Your task to perform on an android device: Search for macbook on ebay, select the first entry, and add it to the cart. Image 0: 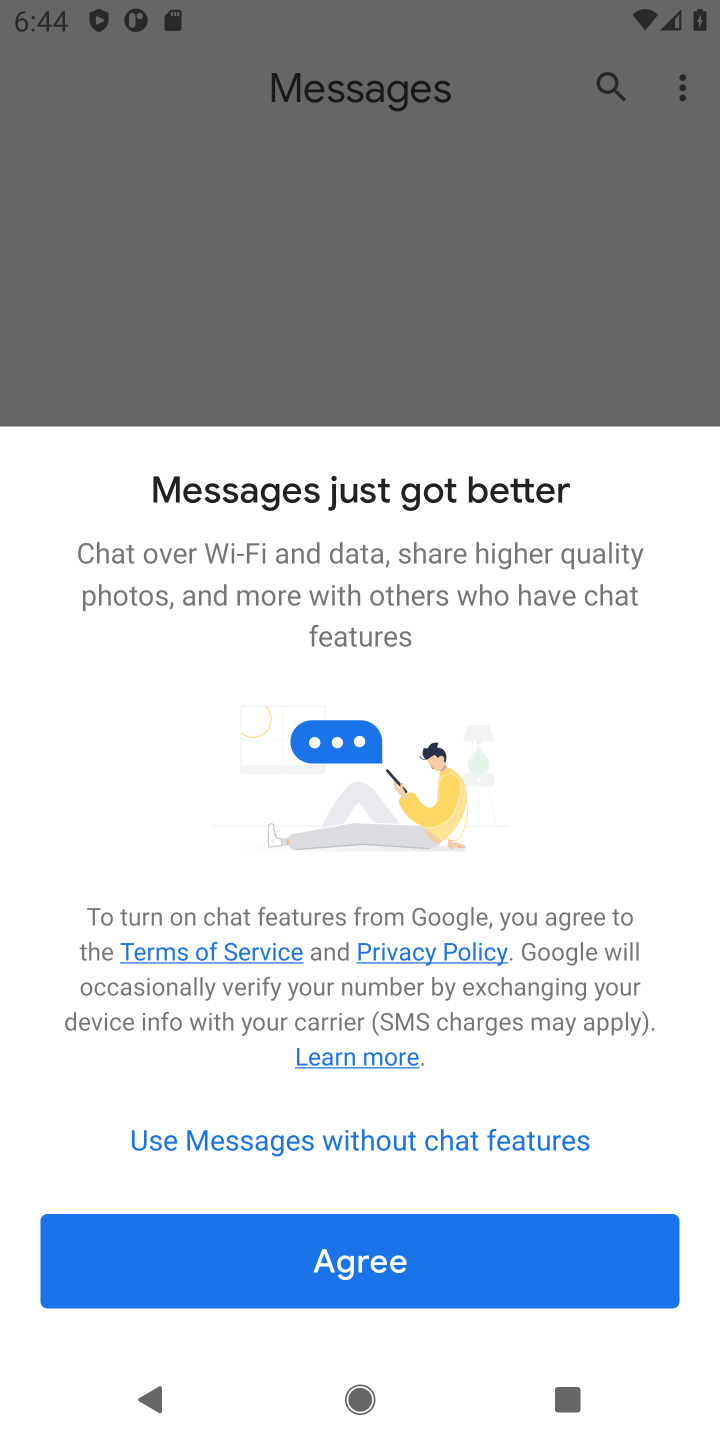
Step 0: press home button
Your task to perform on an android device: Search for macbook on ebay, select the first entry, and add it to the cart. Image 1: 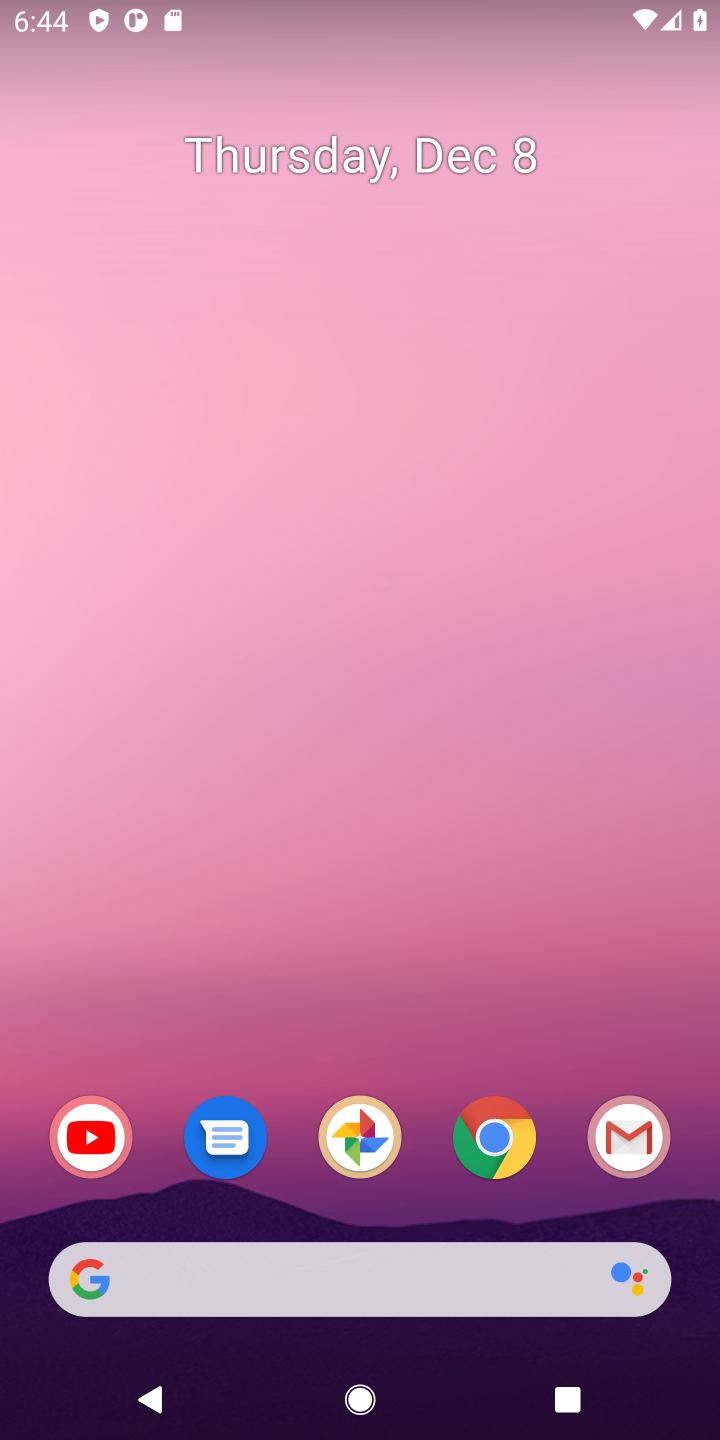
Step 1: click (498, 1165)
Your task to perform on an android device: Search for macbook on ebay, select the first entry, and add it to the cart. Image 2: 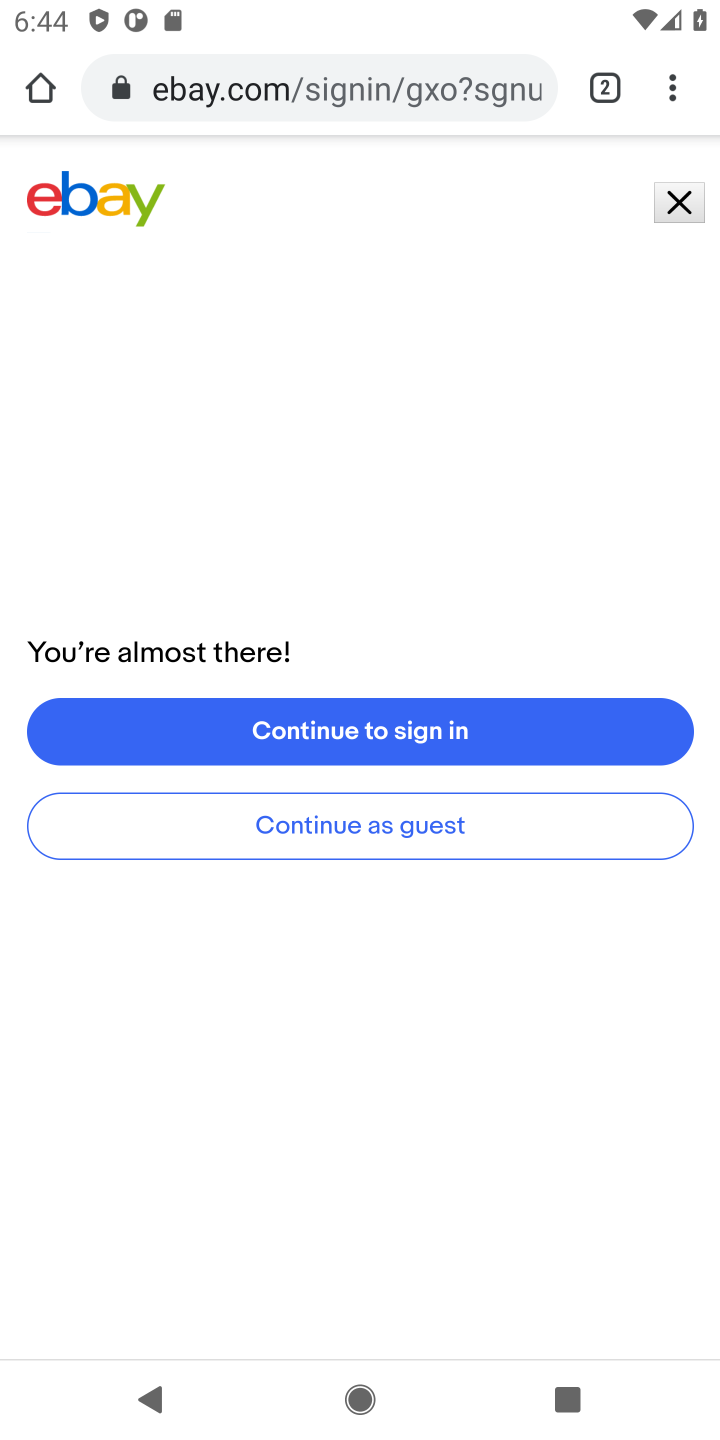
Step 2: click (680, 208)
Your task to perform on an android device: Search for macbook on ebay, select the first entry, and add it to the cart. Image 3: 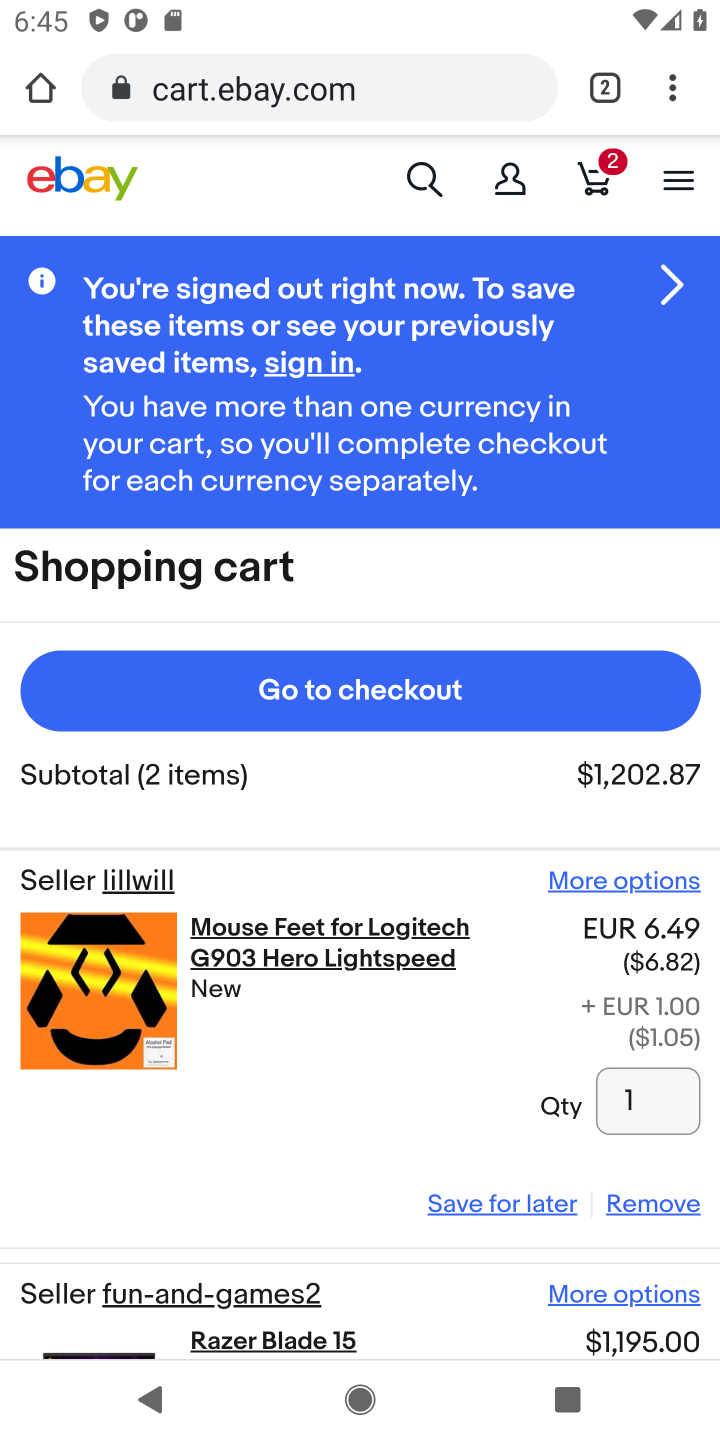
Step 3: click (420, 178)
Your task to perform on an android device: Search for macbook on ebay, select the first entry, and add it to the cart. Image 4: 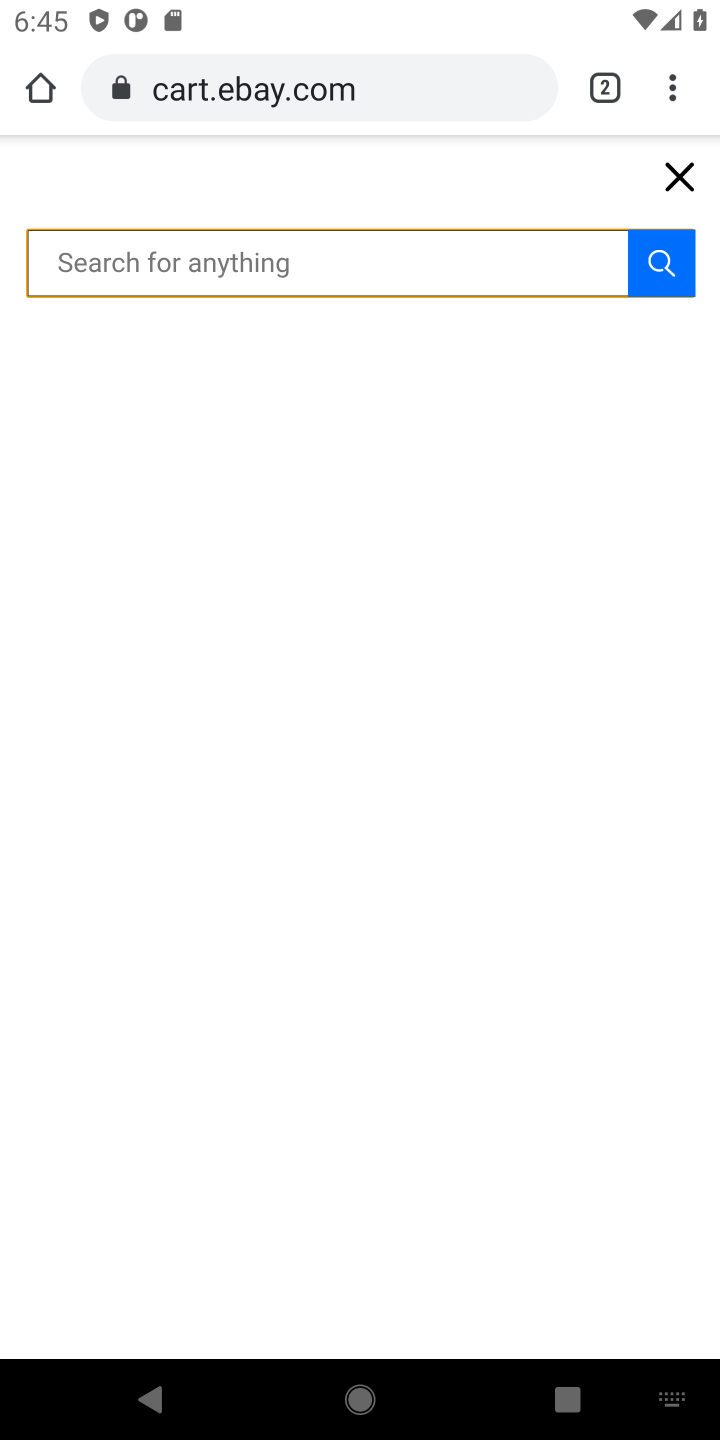
Step 4: type "macbook"
Your task to perform on an android device: Search for macbook on ebay, select the first entry, and add it to the cart. Image 5: 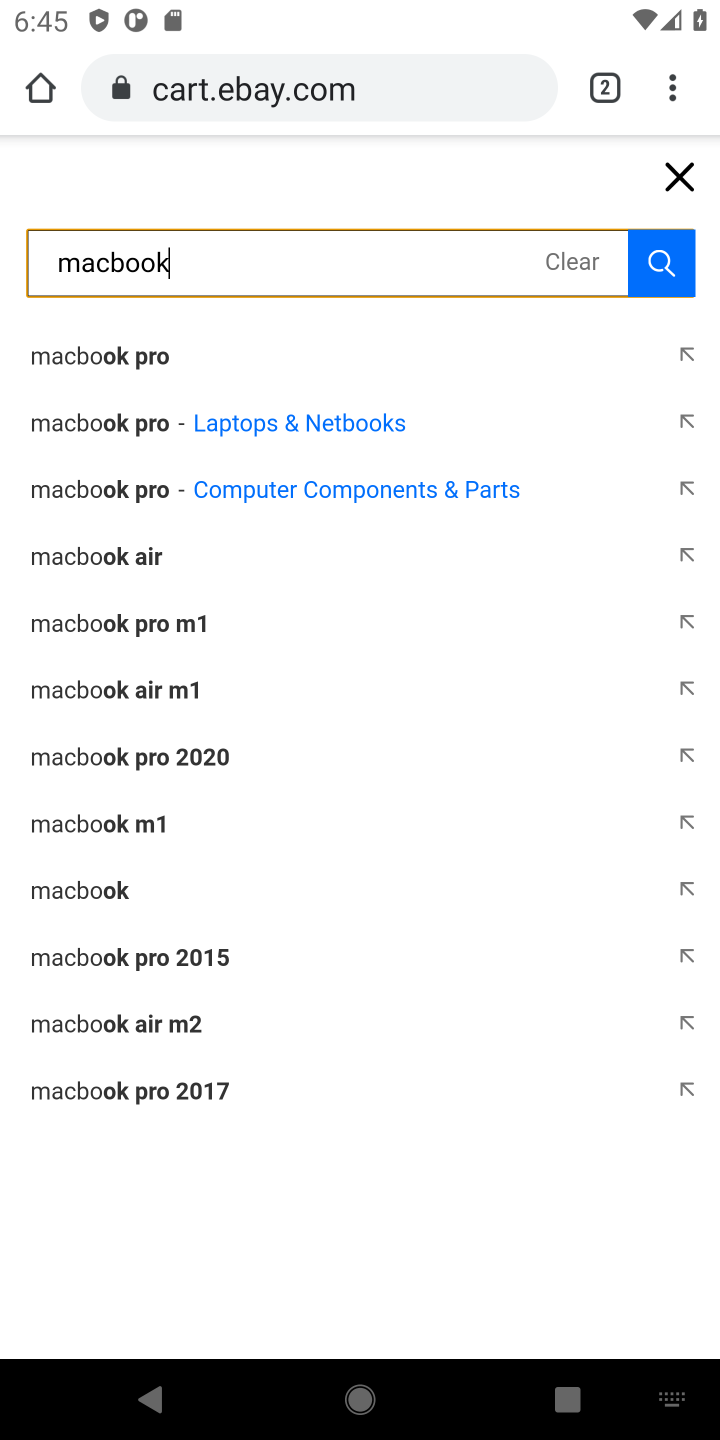
Step 5: click (79, 896)
Your task to perform on an android device: Search for macbook on ebay, select the first entry, and add it to the cart. Image 6: 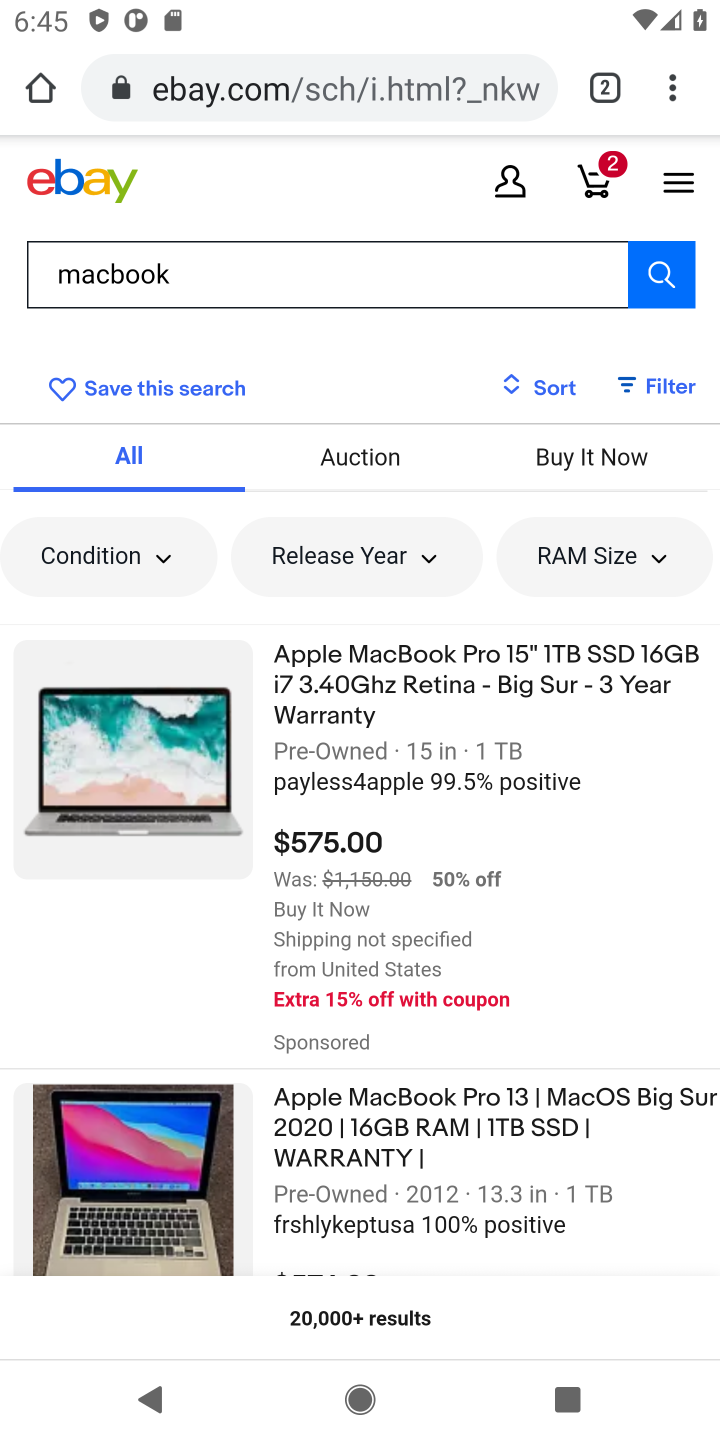
Step 6: click (348, 684)
Your task to perform on an android device: Search for macbook on ebay, select the first entry, and add it to the cart. Image 7: 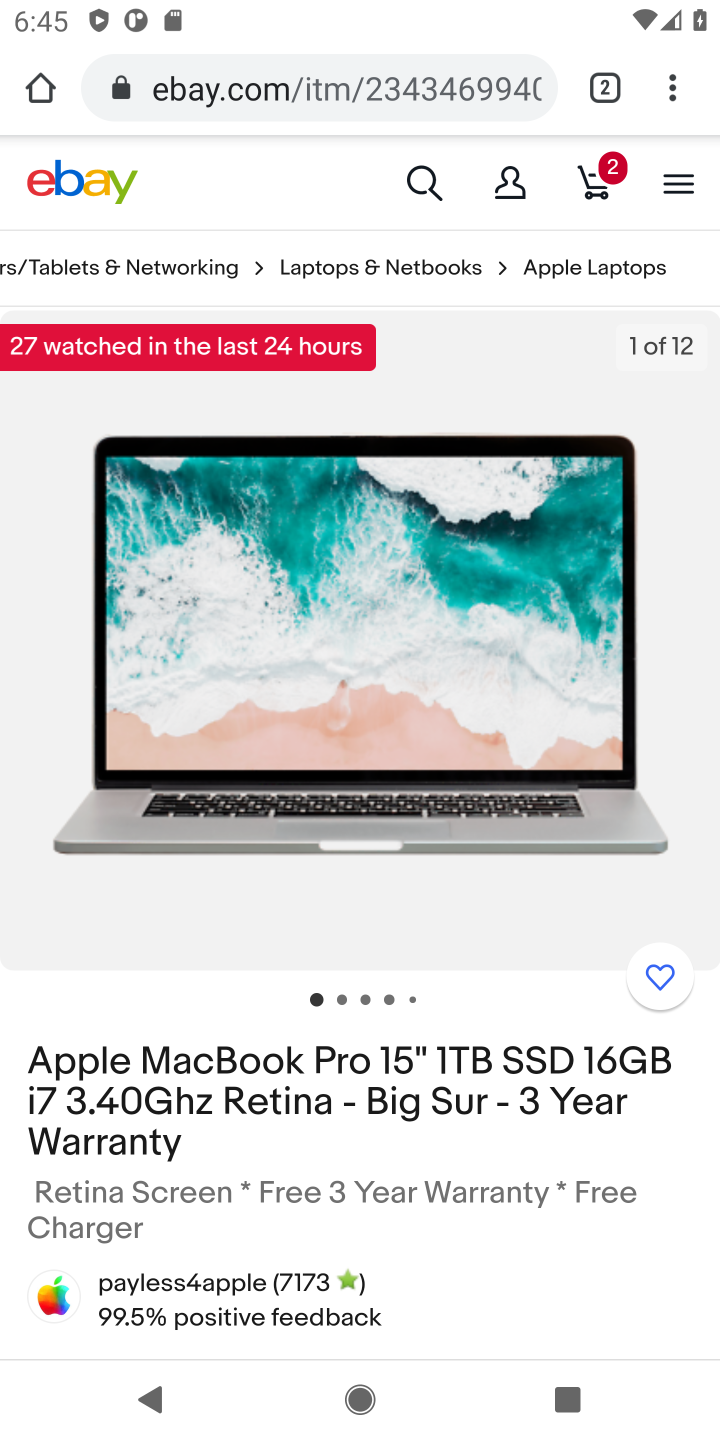
Step 7: drag from (481, 1197) to (502, 383)
Your task to perform on an android device: Search for macbook on ebay, select the first entry, and add it to the cart. Image 8: 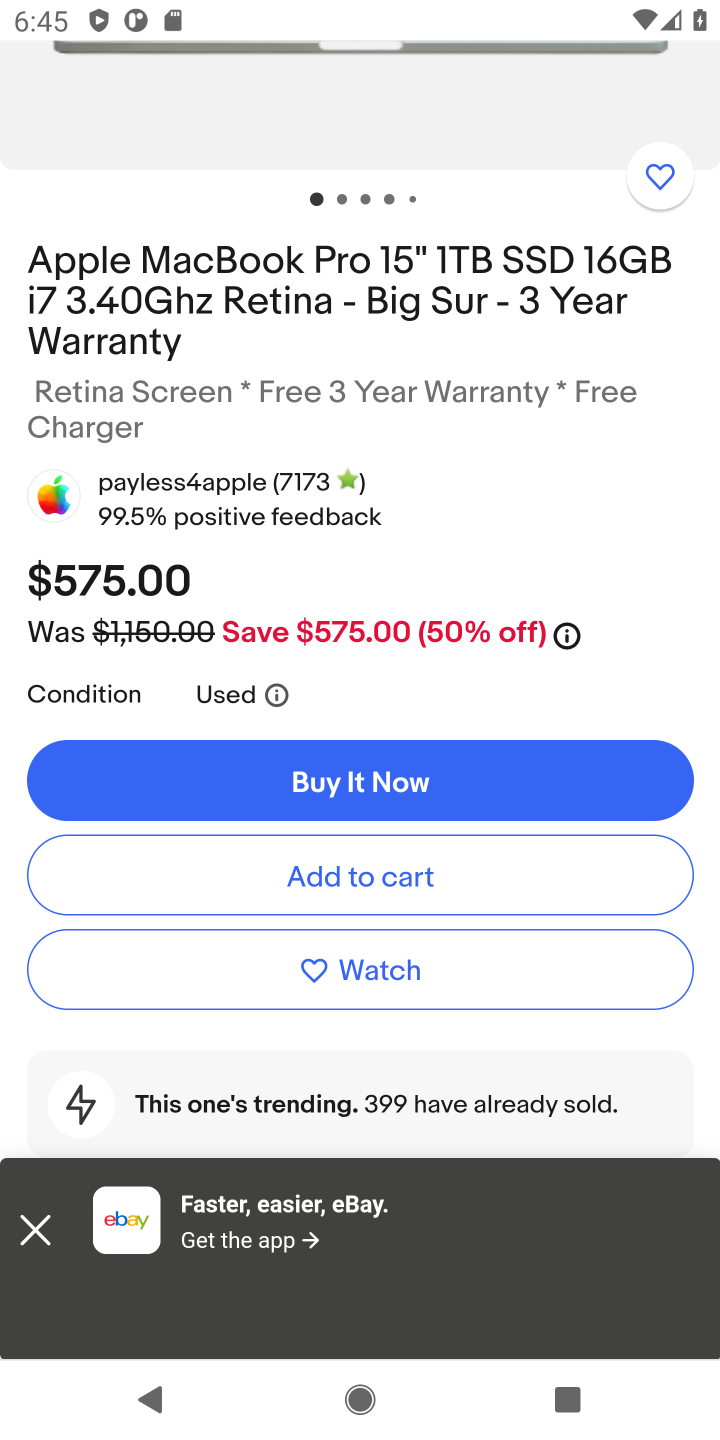
Step 8: click (407, 891)
Your task to perform on an android device: Search for macbook on ebay, select the first entry, and add it to the cart. Image 9: 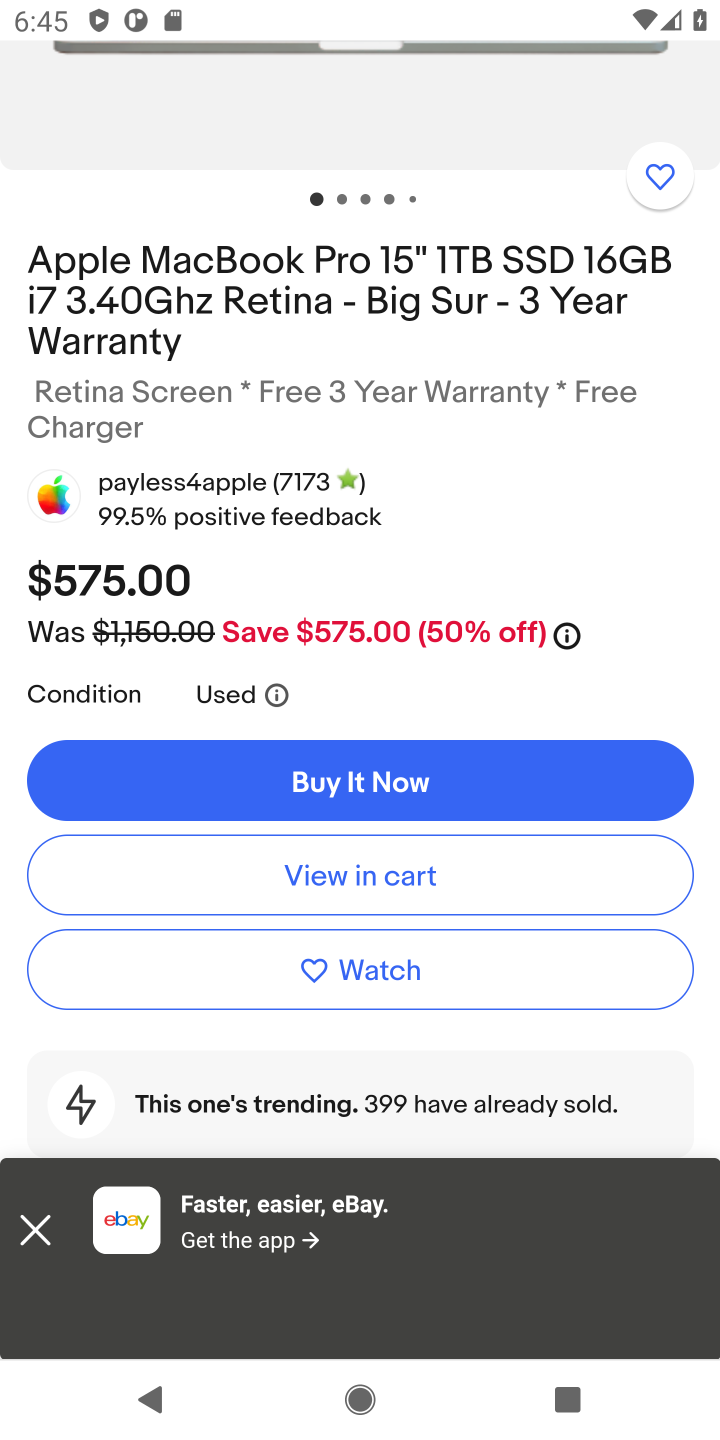
Step 9: task complete